Your task to perform on an android device: Go to Google Image 0: 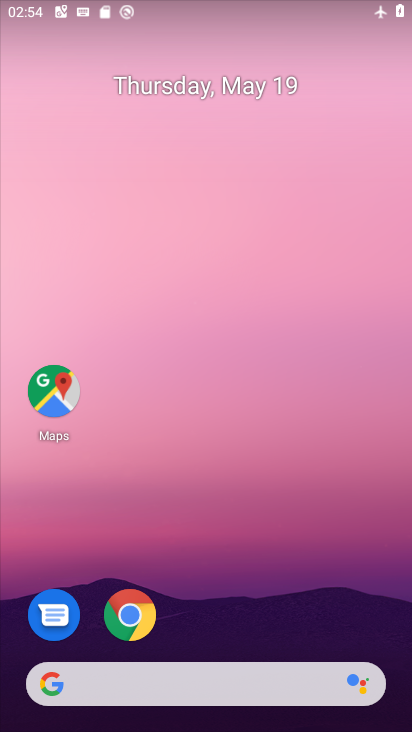
Step 0: drag from (260, 364) to (249, 0)
Your task to perform on an android device: Go to Google Image 1: 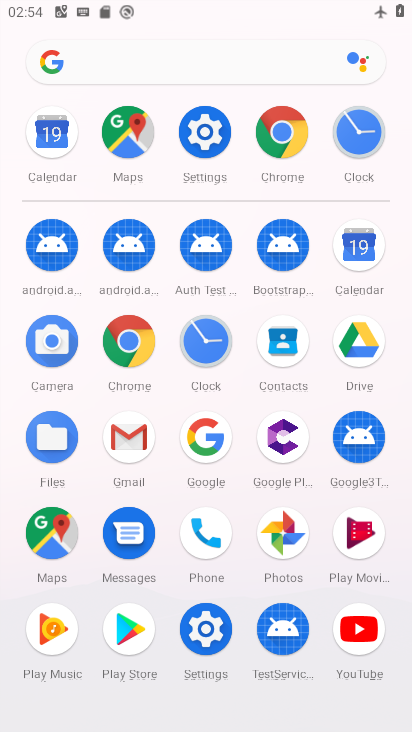
Step 1: drag from (1, 513) to (14, 306)
Your task to perform on an android device: Go to Google Image 2: 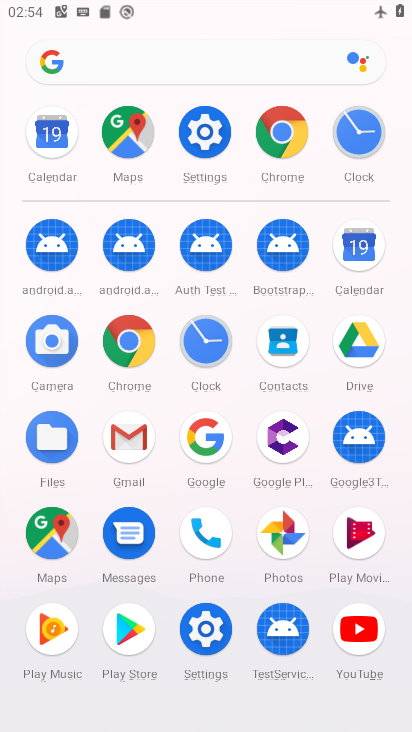
Step 2: click (129, 335)
Your task to perform on an android device: Go to Google Image 3: 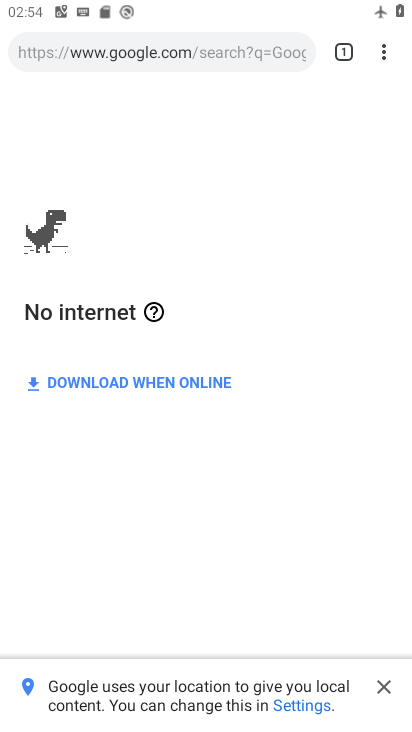
Step 3: drag from (217, 5) to (219, 414)
Your task to perform on an android device: Go to Google Image 4: 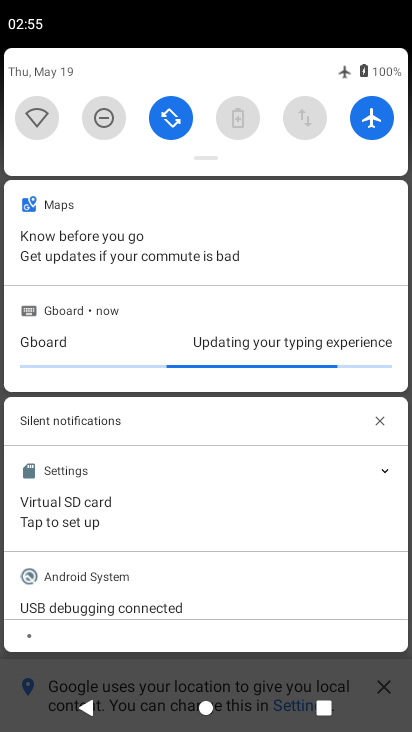
Step 4: click (38, 111)
Your task to perform on an android device: Go to Google Image 5: 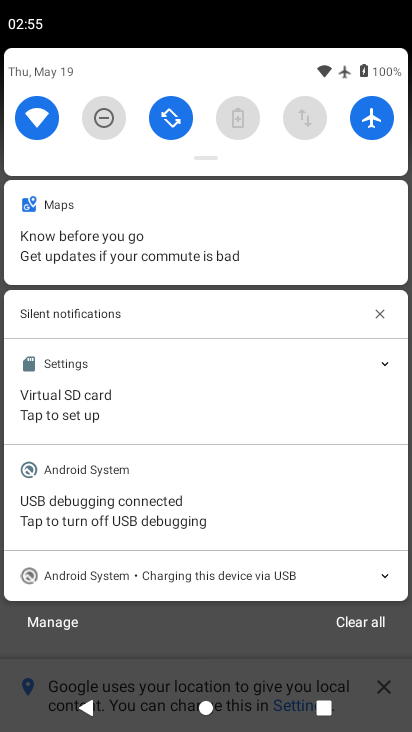
Step 5: drag from (46, 653) to (125, 158)
Your task to perform on an android device: Go to Google Image 6: 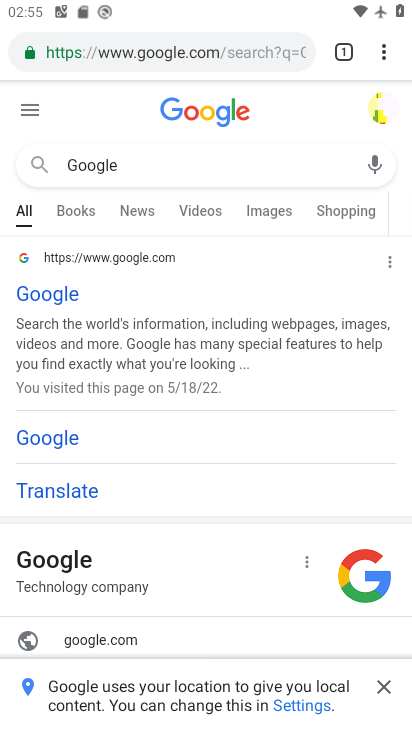
Step 6: click (35, 295)
Your task to perform on an android device: Go to Google Image 7: 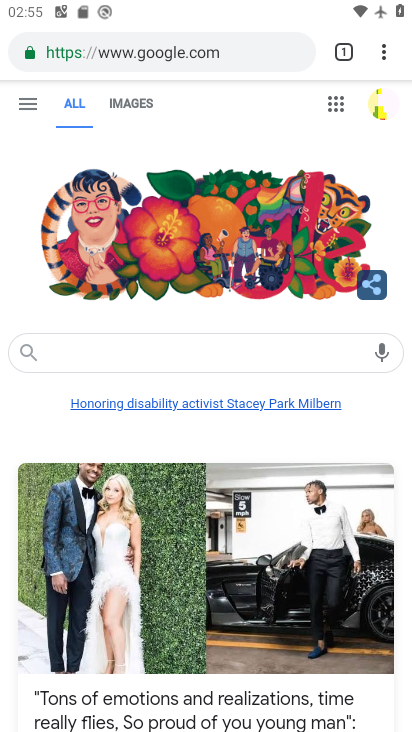
Step 7: task complete